Your task to perform on an android device: move an email to a new category in the gmail app Image 0: 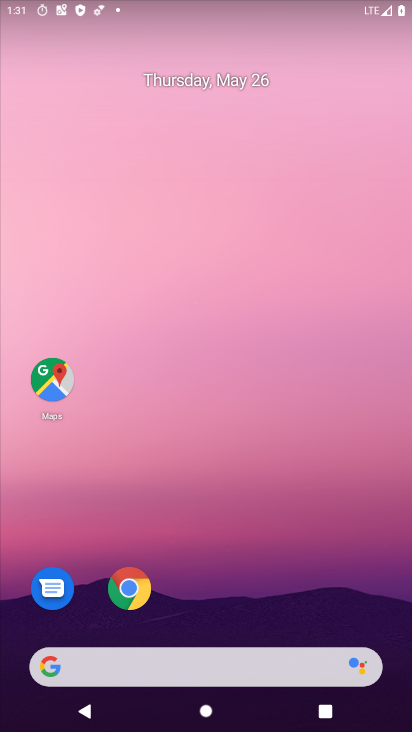
Step 0: drag from (378, 638) to (137, 27)
Your task to perform on an android device: move an email to a new category in the gmail app Image 1: 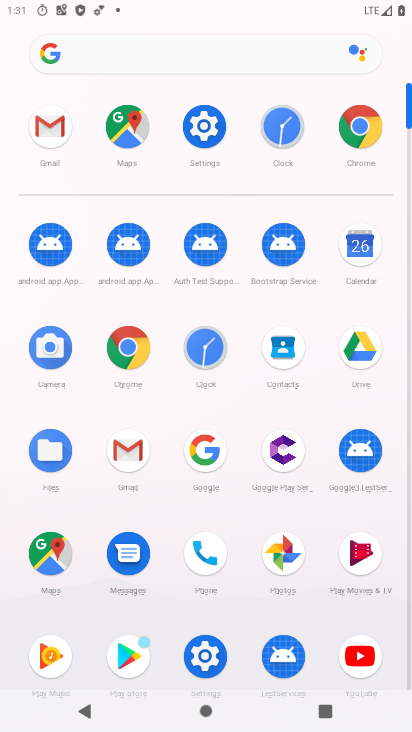
Step 1: click (115, 444)
Your task to perform on an android device: move an email to a new category in the gmail app Image 2: 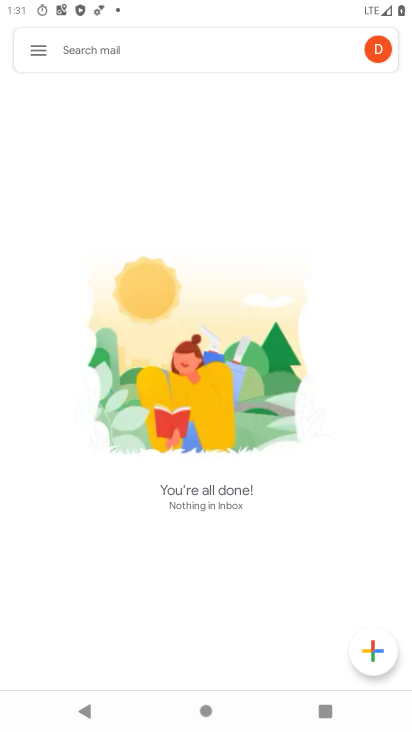
Step 2: click (35, 51)
Your task to perform on an android device: move an email to a new category in the gmail app Image 3: 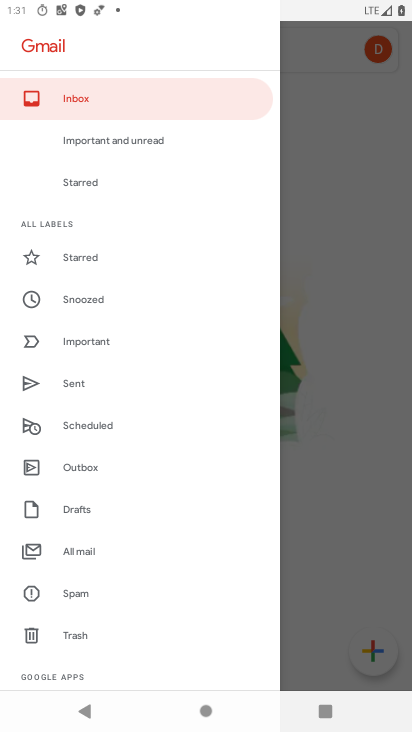
Step 3: click (80, 95)
Your task to perform on an android device: move an email to a new category in the gmail app Image 4: 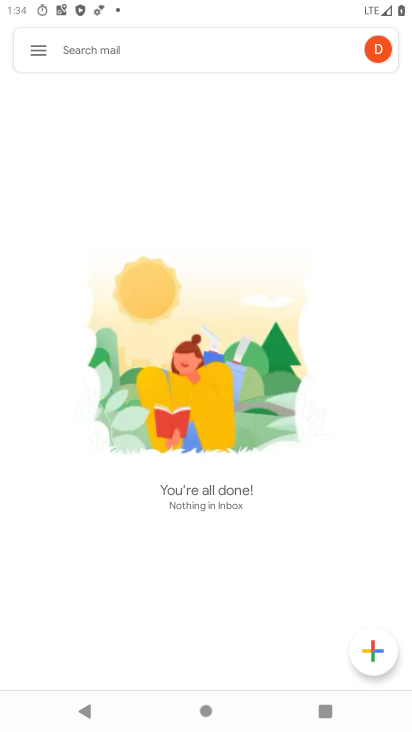
Step 4: task complete